Your task to perform on an android device: install app "Google Home" Image 0: 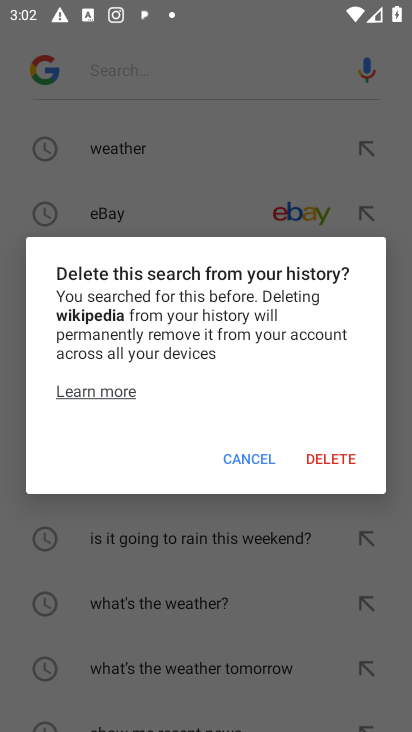
Step 0: press home button
Your task to perform on an android device: install app "Google Home" Image 1: 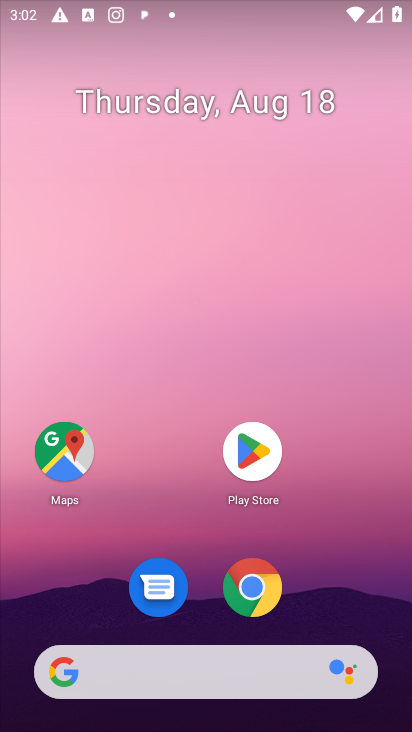
Step 1: click (249, 449)
Your task to perform on an android device: install app "Google Home" Image 2: 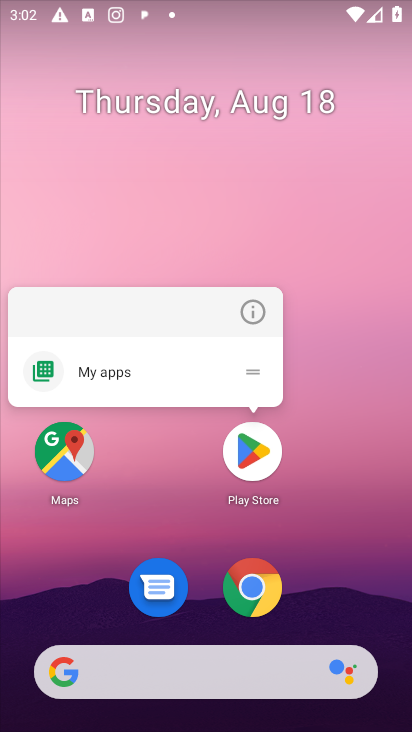
Step 2: click (251, 444)
Your task to perform on an android device: install app "Google Home" Image 3: 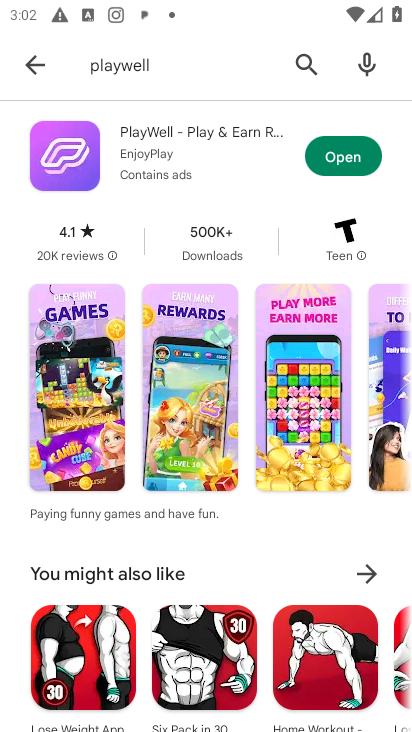
Step 3: click (251, 445)
Your task to perform on an android device: install app "Google Home" Image 4: 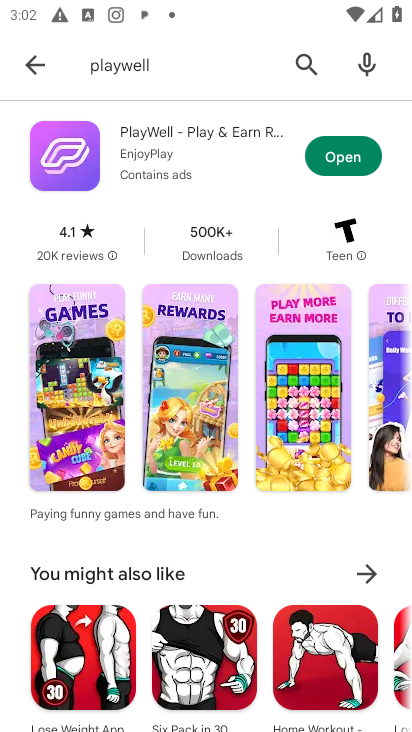
Step 4: click (299, 61)
Your task to perform on an android device: install app "Google Home" Image 5: 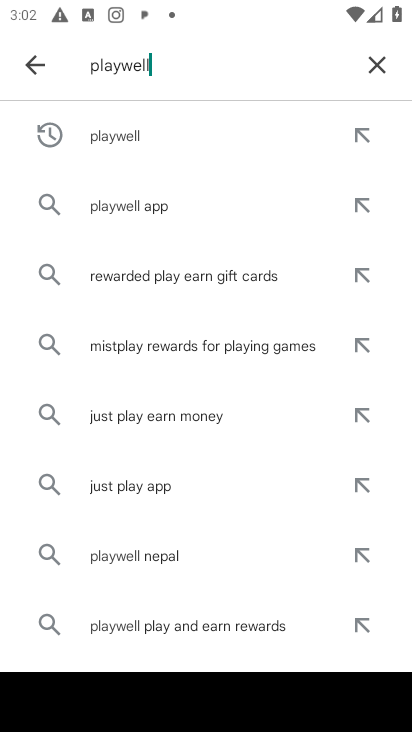
Step 5: click (373, 55)
Your task to perform on an android device: install app "Google Home" Image 6: 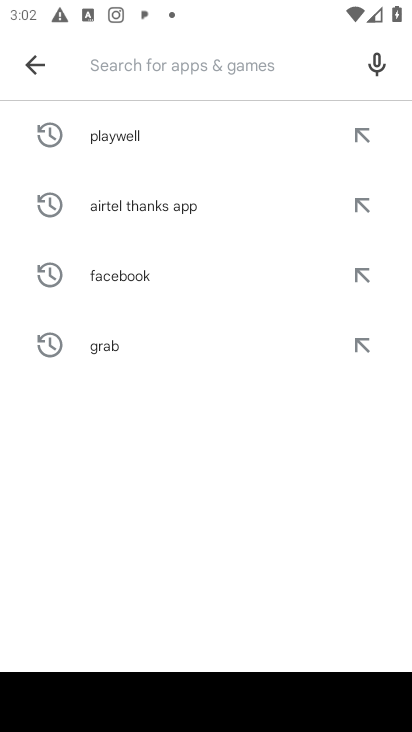
Step 6: type "Google Home"
Your task to perform on an android device: install app "Google Home" Image 7: 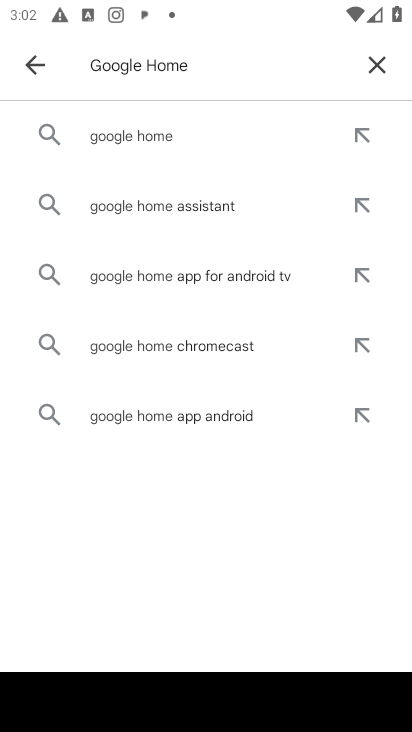
Step 7: click (150, 138)
Your task to perform on an android device: install app "Google Home" Image 8: 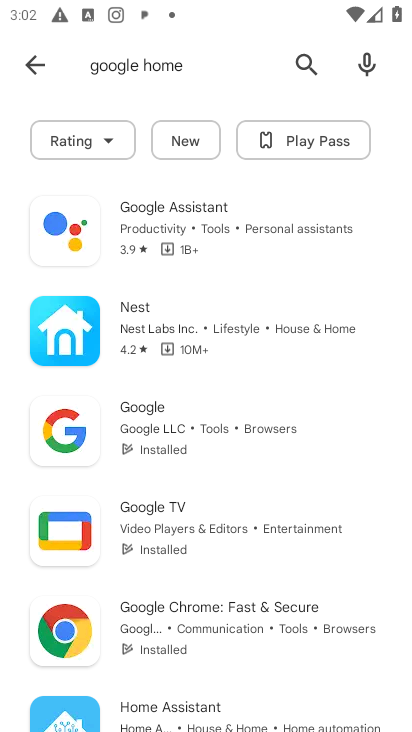
Step 8: task complete